Your task to perform on an android device: Go to Maps Image 0: 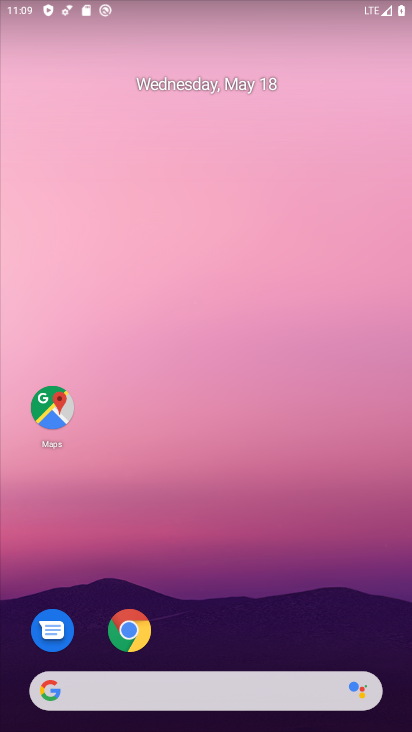
Step 0: click (57, 396)
Your task to perform on an android device: Go to Maps Image 1: 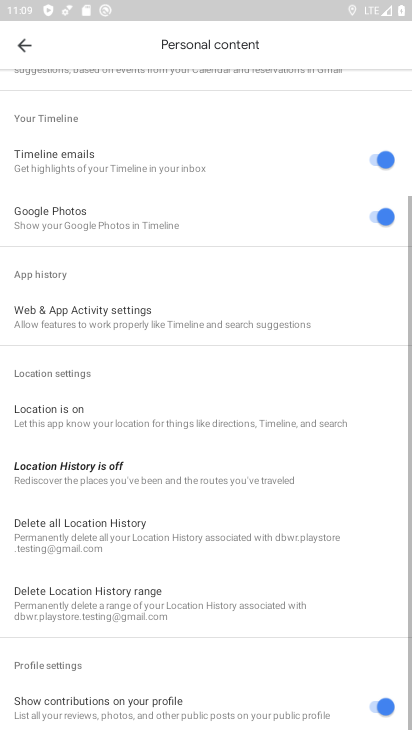
Step 1: click (22, 44)
Your task to perform on an android device: Go to Maps Image 2: 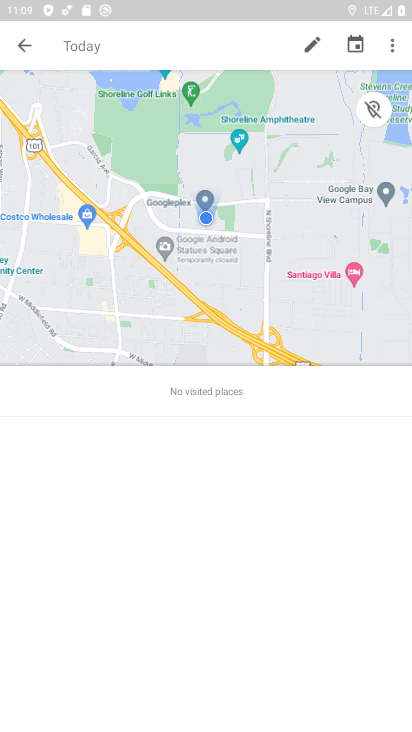
Step 2: click (19, 46)
Your task to perform on an android device: Go to Maps Image 3: 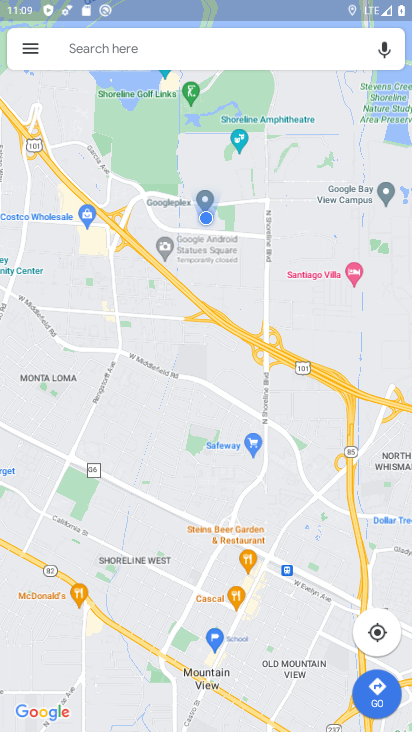
Step 3: task complete